Your task to perform on an android device: open a new tab in the chrome app Image 0: 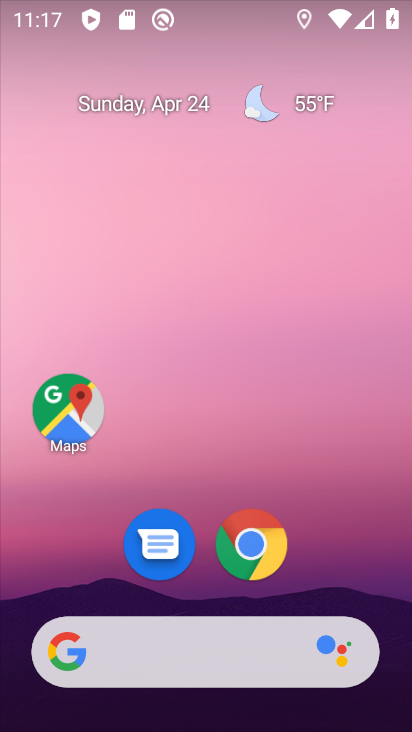
Step 0: click (237, 560)
Your task to perform on an android device: open a new tab in the chrome app Image 1: 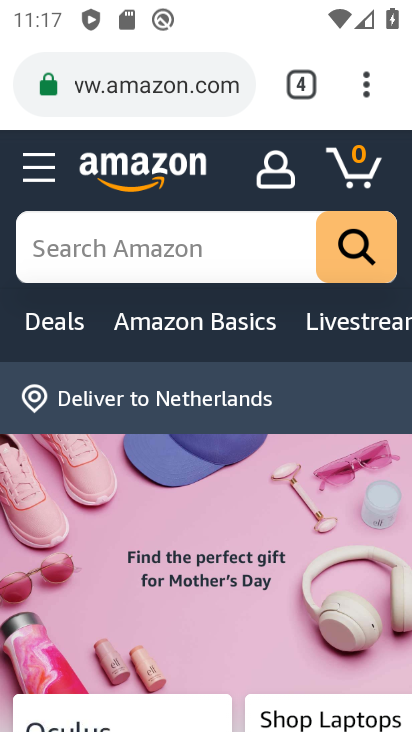
Step 1: click (369, 76)
Your task to perform on an android device: open a new tab in the chrome app Image 2: 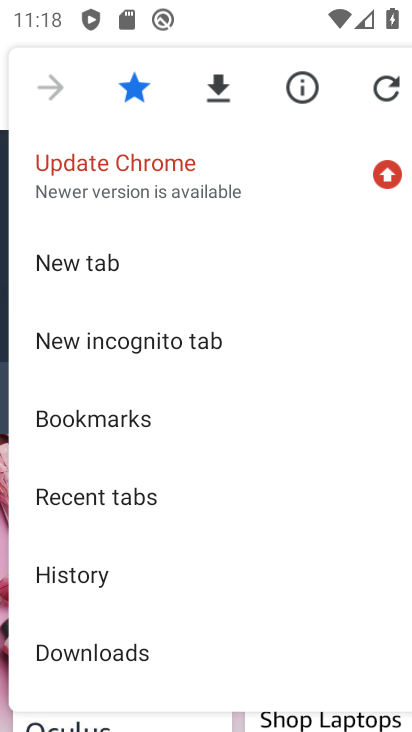
Step 2: press back button
Your task to perform on an android device: open a new tab in the chrome app Image 3: 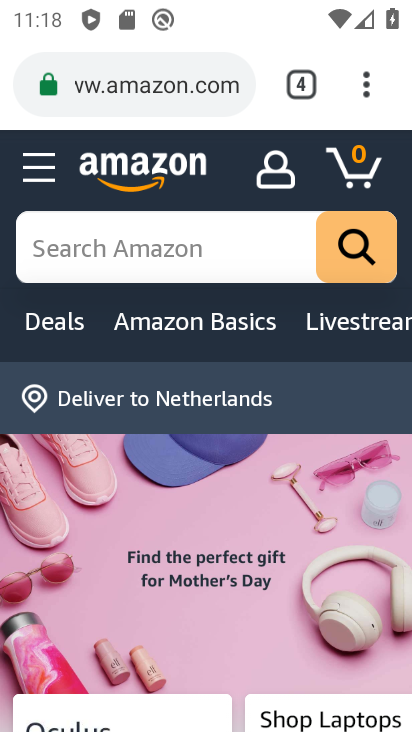
Step 3: click (309, 85)
Your task to perform on an android device: open a new tab in the chrome app Image 4: 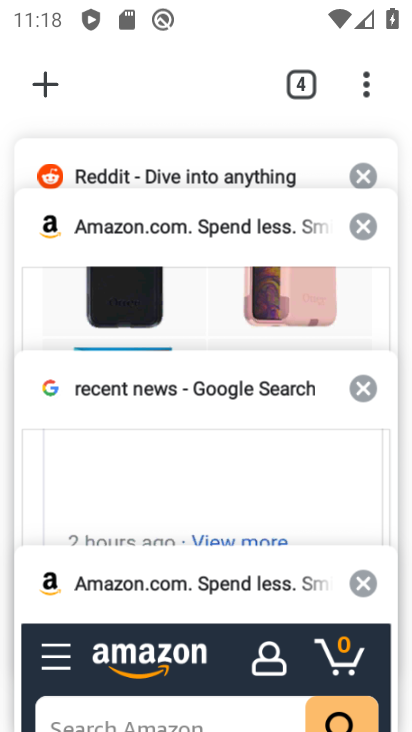
Step 4: click (46, 81)
Your task to perform on an android device: open a new tab in the chrome app Image 5: 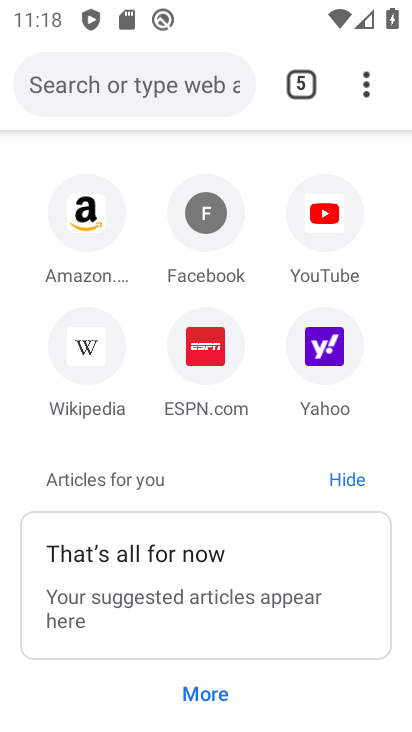
Step 5: task complete